Your task to perform on an android device: open a bookmark in the chrome app Image 0: 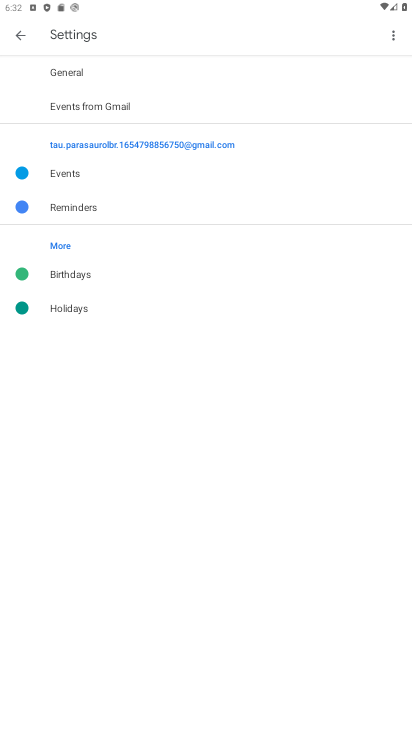
Step 0: press home button
Your task to perform on an android device: open a bookmark in the chrome app Image 1: 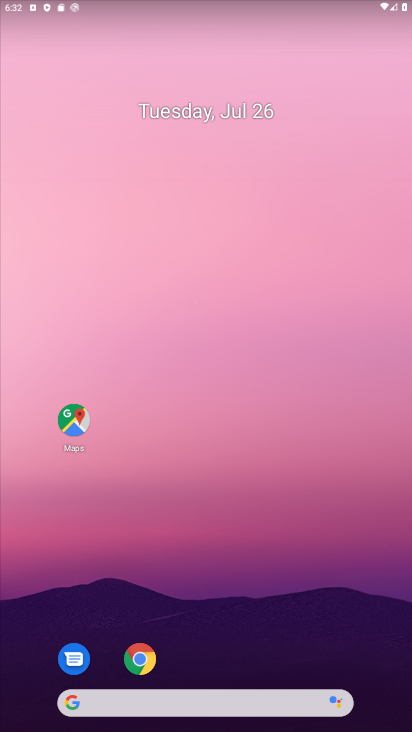
Step 1: drag from (225, 577) to (245, 226)
Your task to perform on an android device: open a bookmark in the chrome app Image 2: 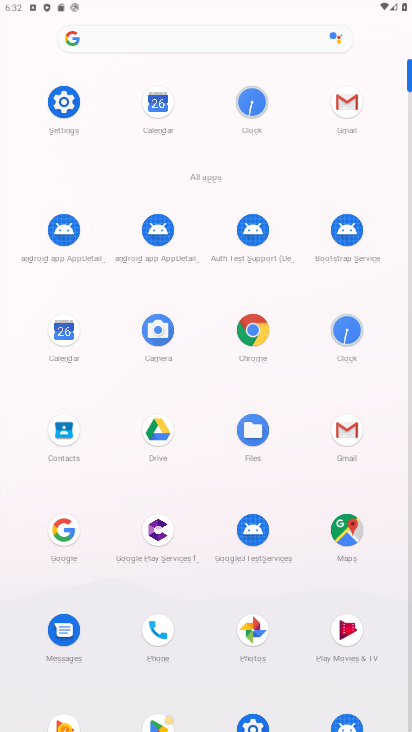
Step 2: click (242, 334)
Your task to perform on an android device: open a bookmark in the chrome app Image 3: 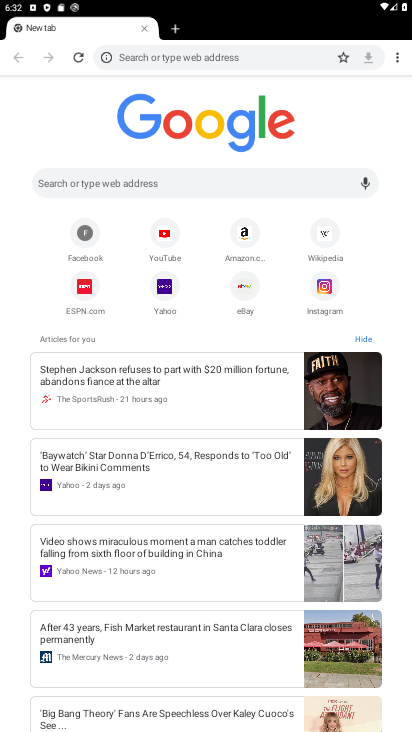
Step 3: click (402, 62)
Your task to perform on an android device: open a bookmark in the chrome app Image 4: 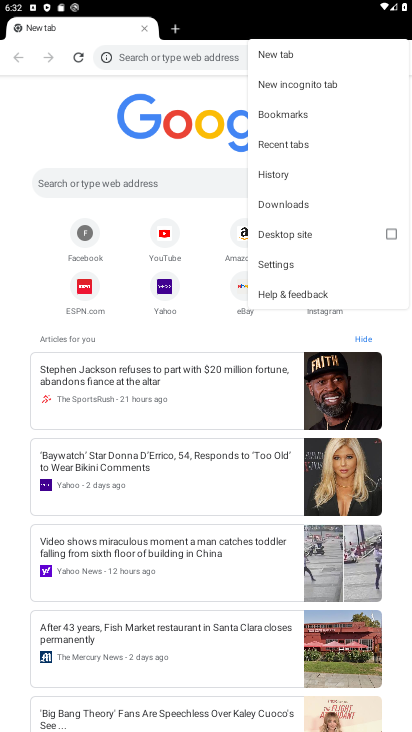
Step 4: click (308, 115)
Your task to perform on an android device: open a bookmark in the chrome app Image 5: 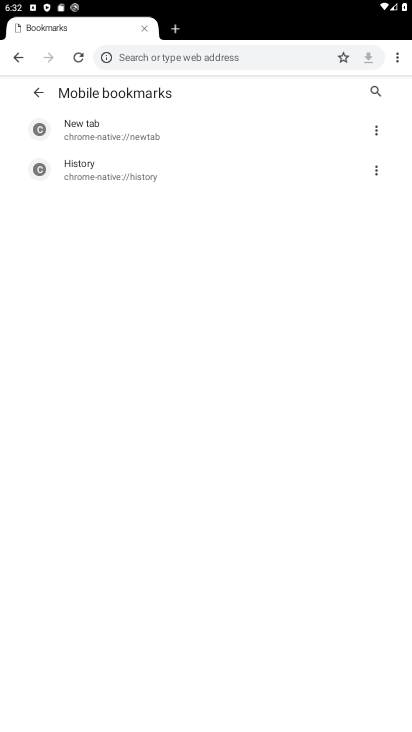
Step 5: task complete